Your task to perform on an android device: turn off data saver in the chrome app Image 0: 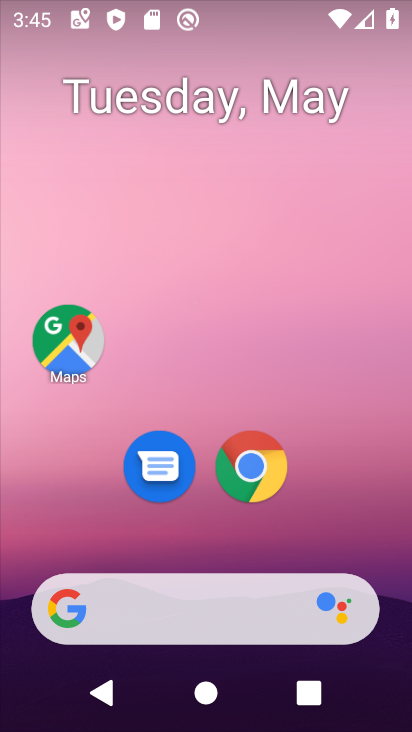
Step 0: click (257, 479)
Your task to perform on an android device: turn off data saver in the chrome app Image 1: 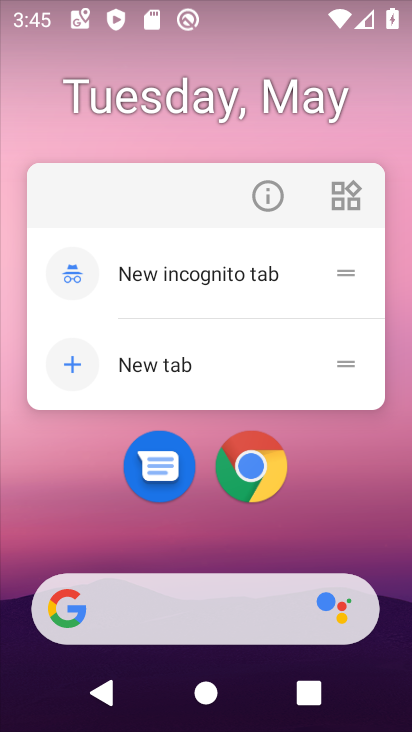
Step 1: click (254, 481)
Your task to perform on an android device: turn off data saver in the chrome app Image 2: 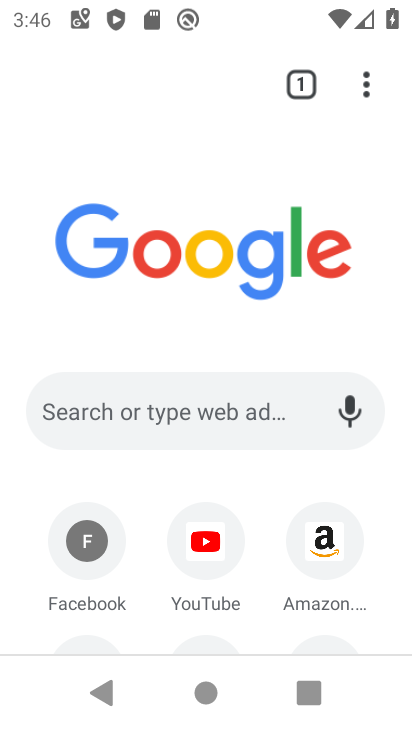
Step 2: click (372, 90)
Your task to perform on an android device: turn off data saver in the chrome app Image 3: 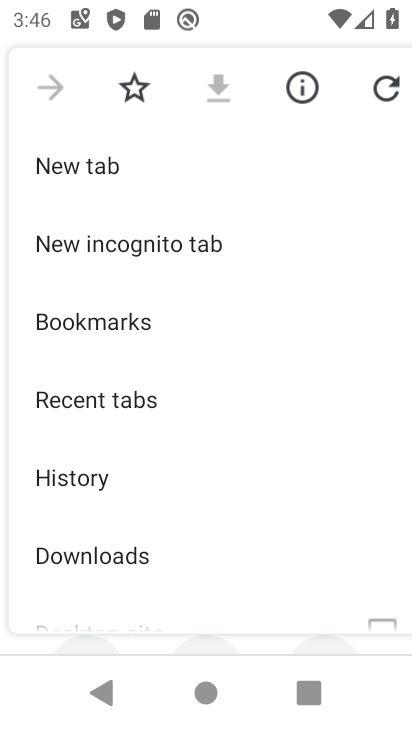
Step 3: drag from (209, 554) to (293, 111)
Your task to perform on an android device: turn off data saver in the chrome app Image 4: 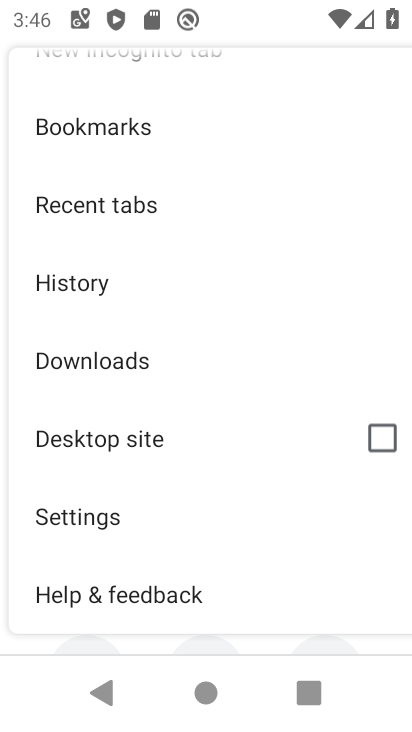
Step 4: click (127, 517)
Your task to perform on an android device: turn off data saver in the chrome app Image 5: 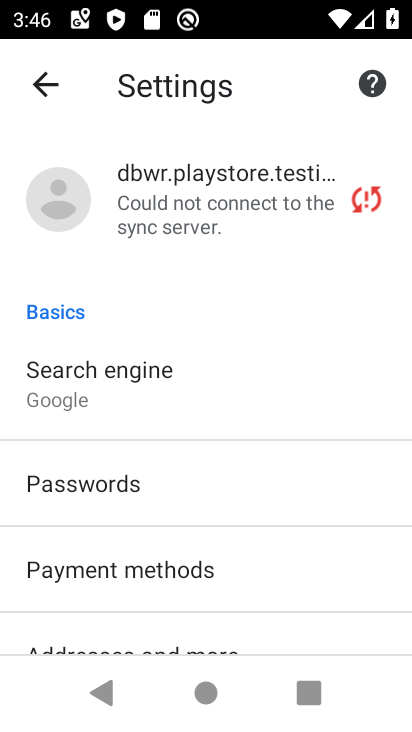
Step 5: drag from (227, 526) to (272, 256)
Your task to perform on an android device: turn off data saver in the chrome app Image 6: 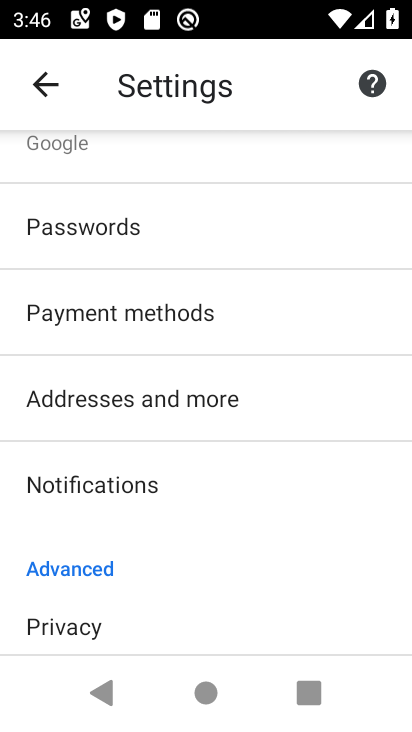
Step 6: drag from (270, 595) to (291, 350)
Your task to perform on an android device: turn off data saver in the chrome app Image 7: 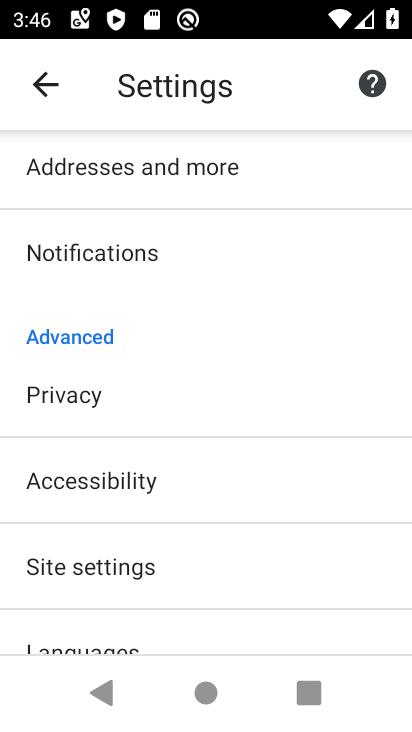
Step 7: drag from (221, 568) to (253, 285)
Your task to perform on an android device: turn off data saver in the chrome app Image 8: 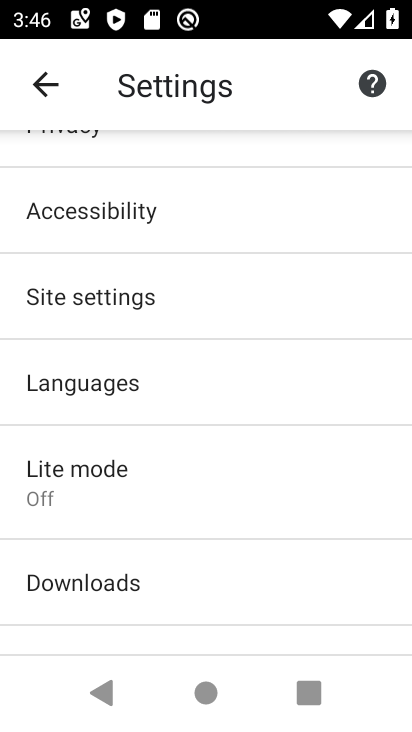
Step 8: click (96, 474)
Your task to perform on an android device: turn off data saver in the chrome app Image 9: 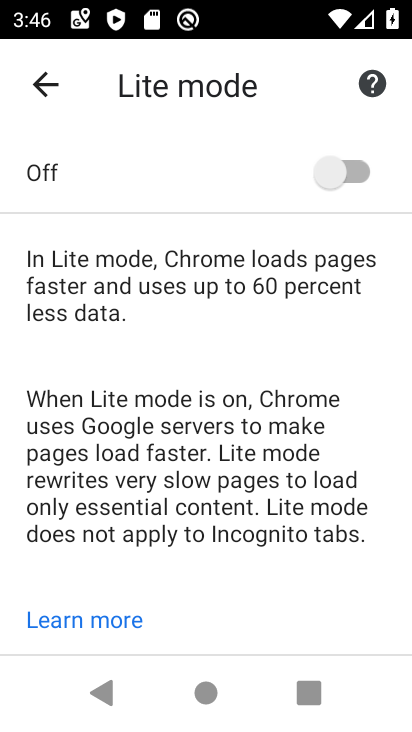
Step 9: click (317, 574)
Your task to perform on an android device: turn off data saver in the chrome app Image 10: 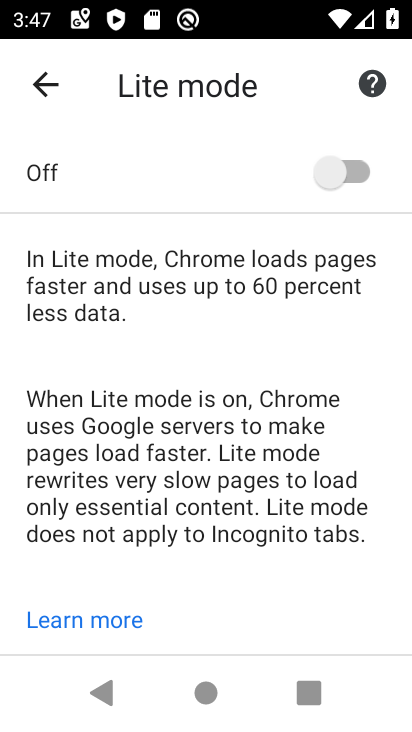
Step 10: task complete